Your task to perform on an android device: Go to settings Image 0: 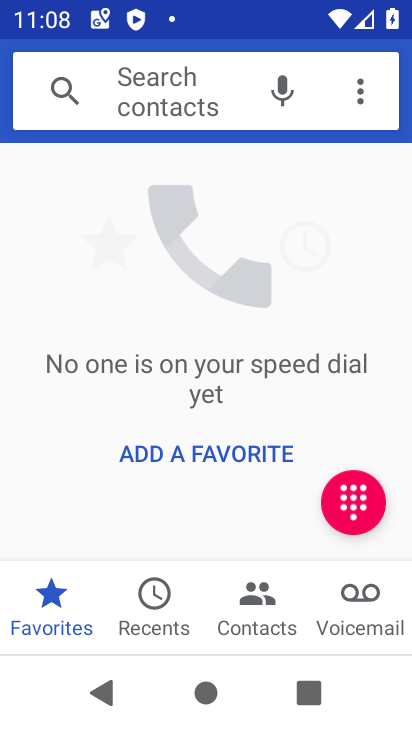
Step 0: press home button
Your task to perform on an android device: Go to settings Image 1: 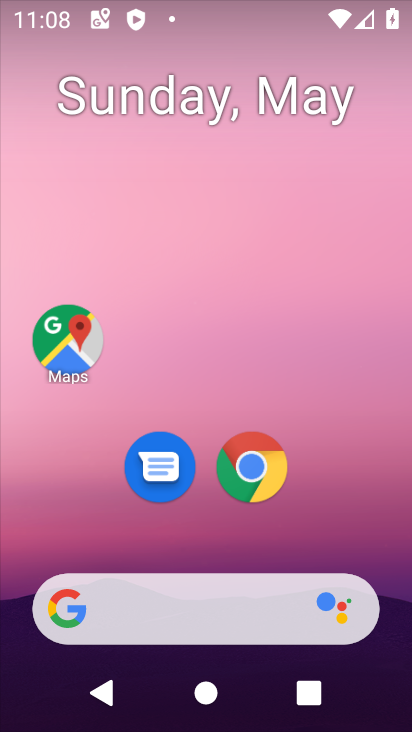
Step 1: drag from (372, 562) to (344, 59)
Your task to perform on an android device: Go to settings Image 2: 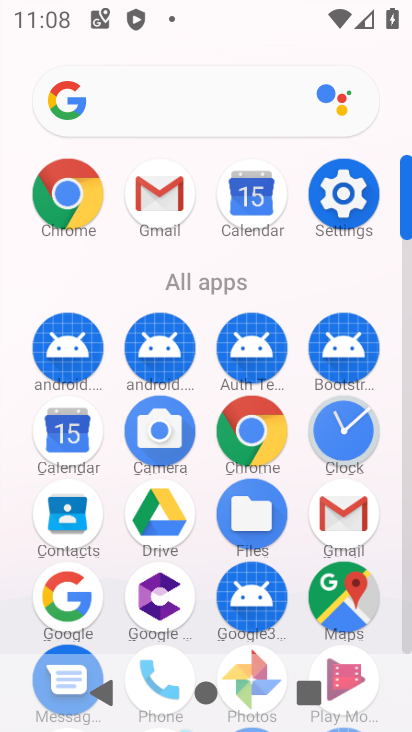
Step 2: click (343, 195)
Your task to perform on an android device: Go to settings Image 3: 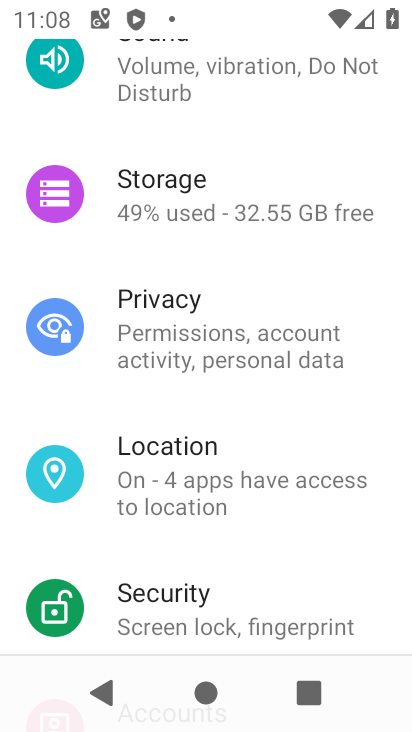
Step 3: task complete